Your task to perform on an android device: turn off translation in the chrome app Image 0: 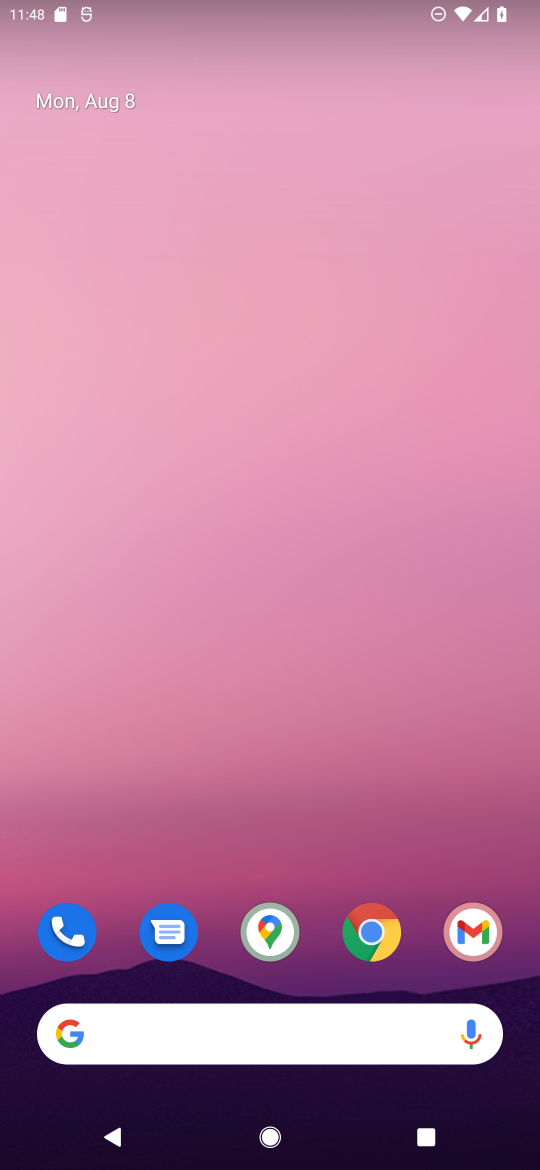
Step 0: click (371, 926)
Your task to perform on an android device: turn off translation in the chrome app Image 1: 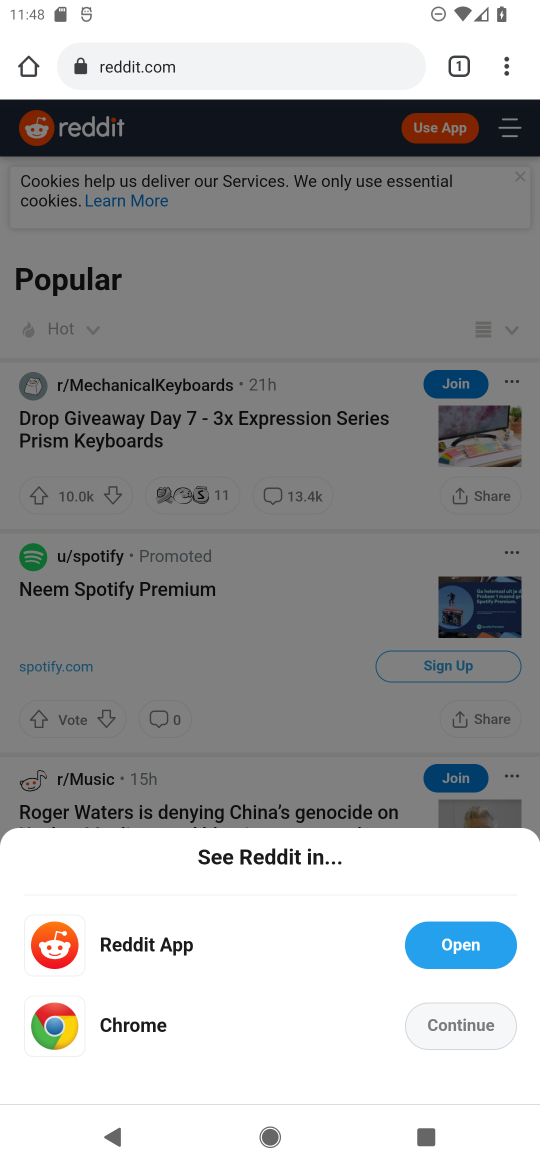
Step 1: click (514, 66)
Your task to perform on an android device: turn off translation in the chrome app Image 2: 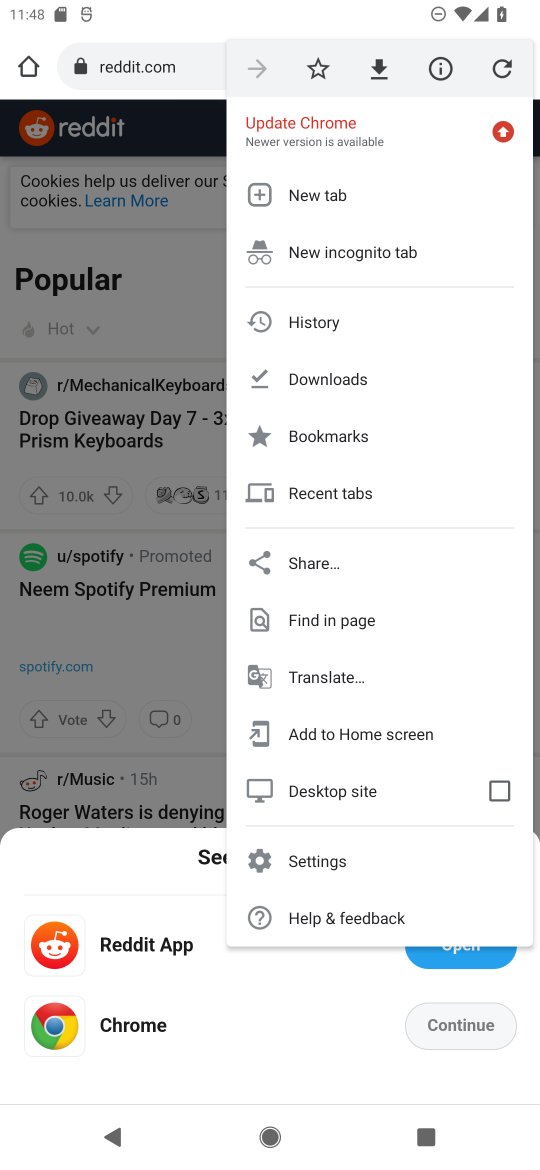
Step 2: click (305, 875)
Your task to perform on an android device: turn off translation in the chrome app Image 3: 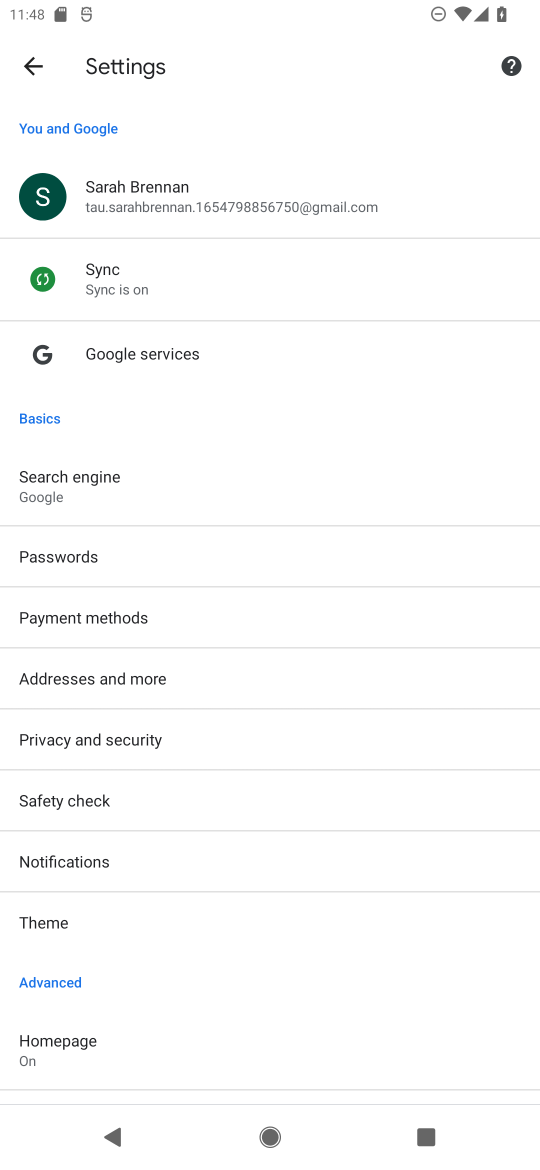
Step 3: drag from (124, 961) to (142, 263)
Your task to perform on an android device: turn off translation in the chrome app Image 4: 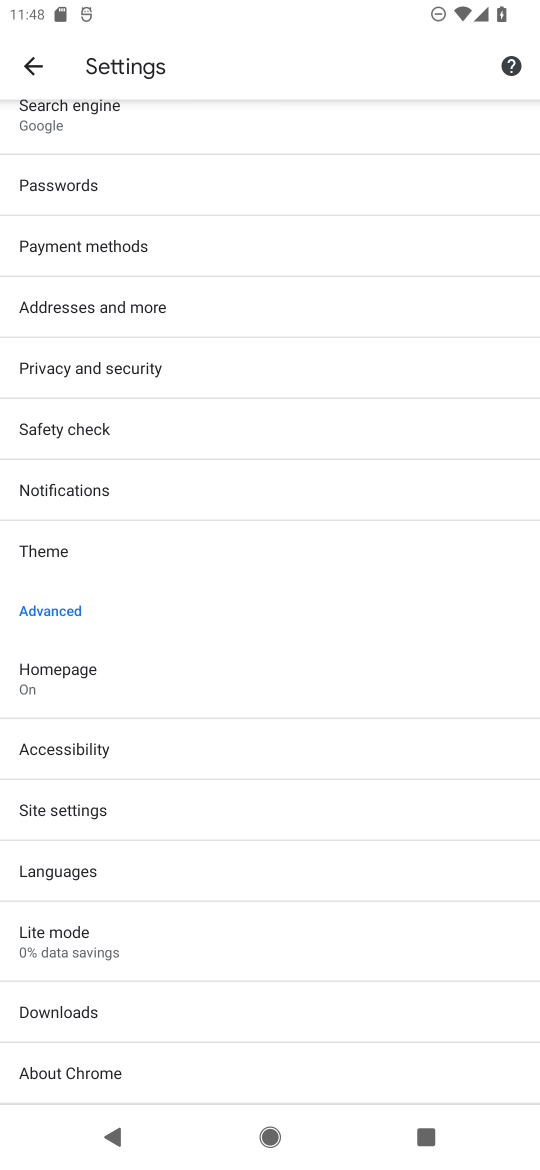
Step 4: click (96, 1048)
Your task to perform on an android device: turn off translation in the chrome app Image 5: 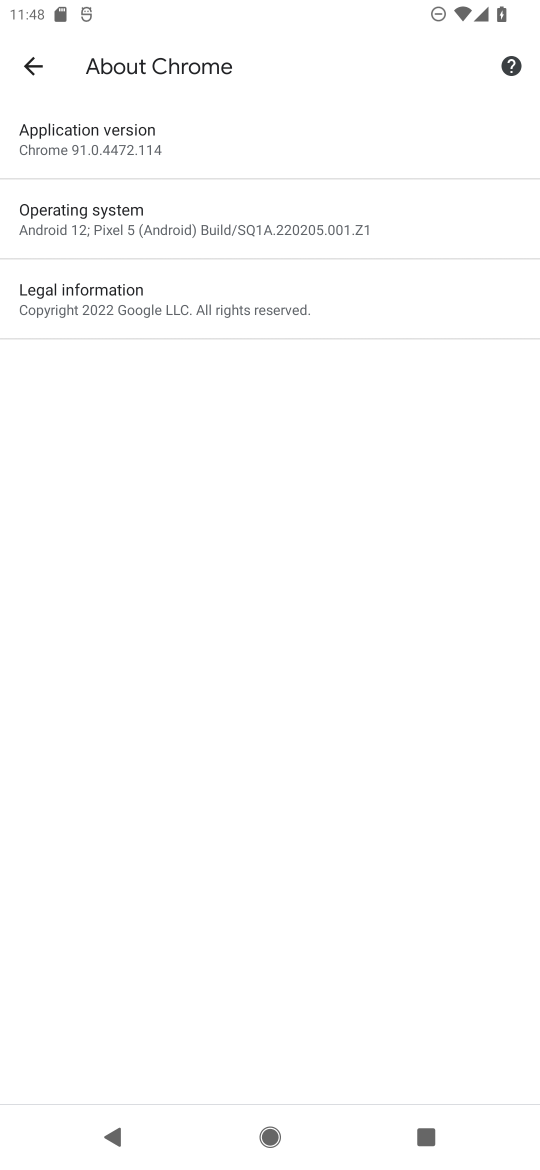
Step 5: click (358, 211)
Your task to perform on an android device: turn off translation in the chrome app Image 6: 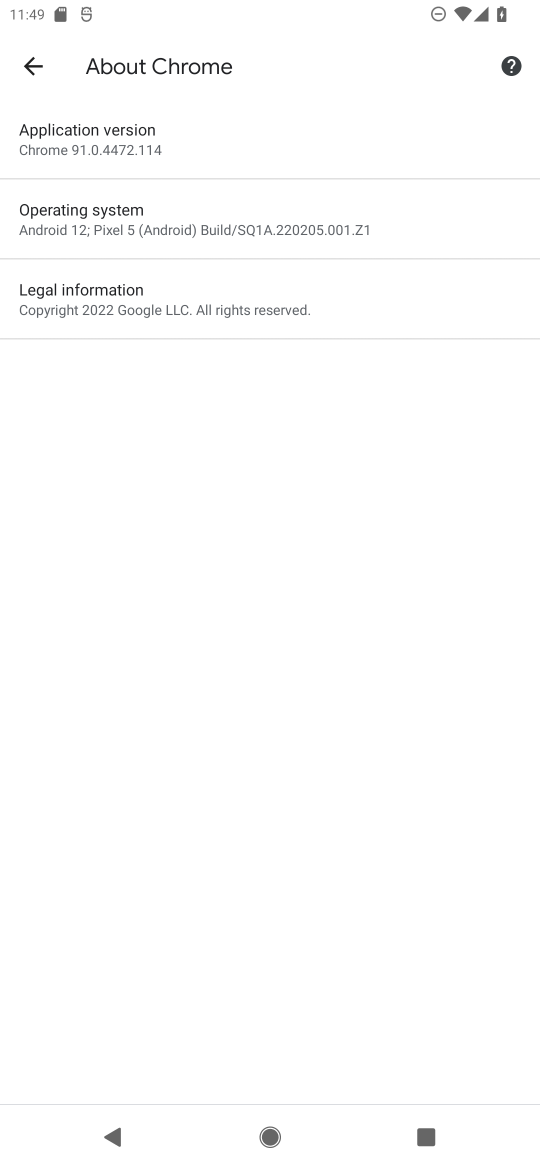
Step 6: click (45, 66)
Your task to perform on an android device: turn off translation in the chrome app Image 7: 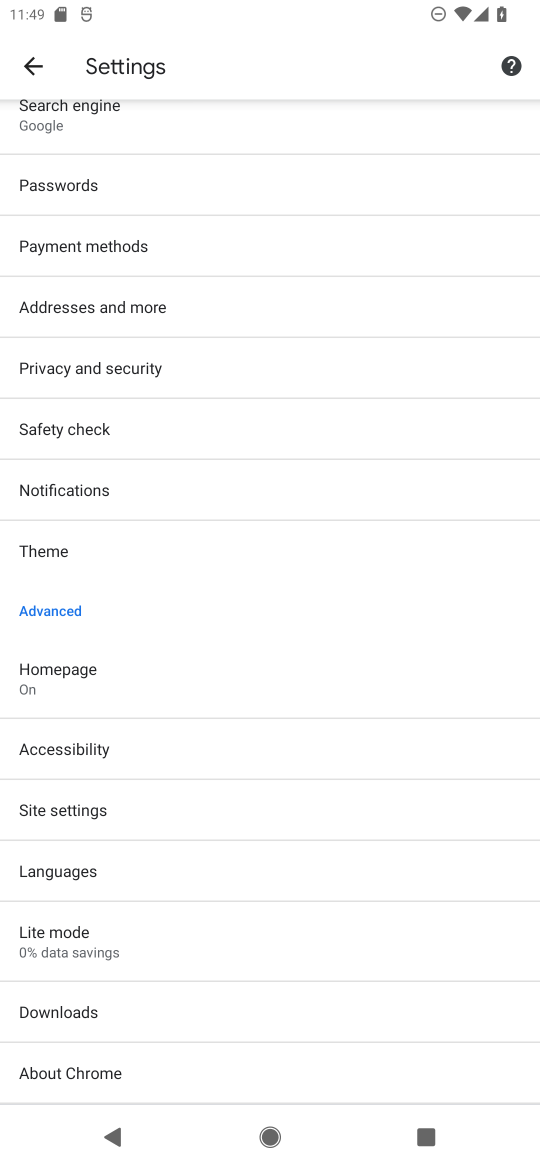
Step 7: click (206, 880)
Your task to perform on an android device: turn off translation in the chrome app Image 8: 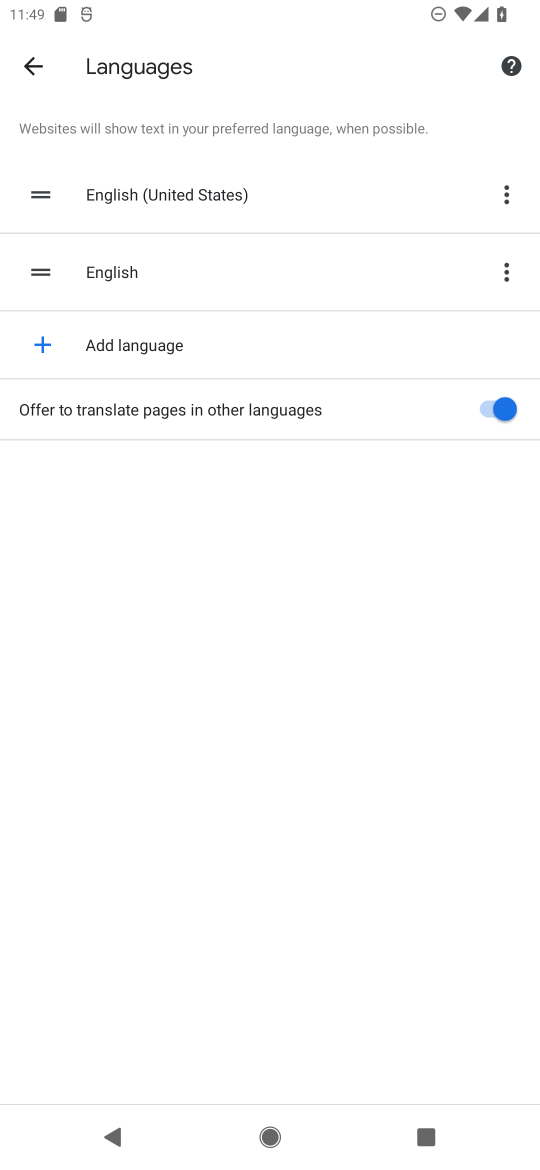
Step 8: click (493, 406)
Your task to perform on an android device: turn off translation in the chrome app Image 9: 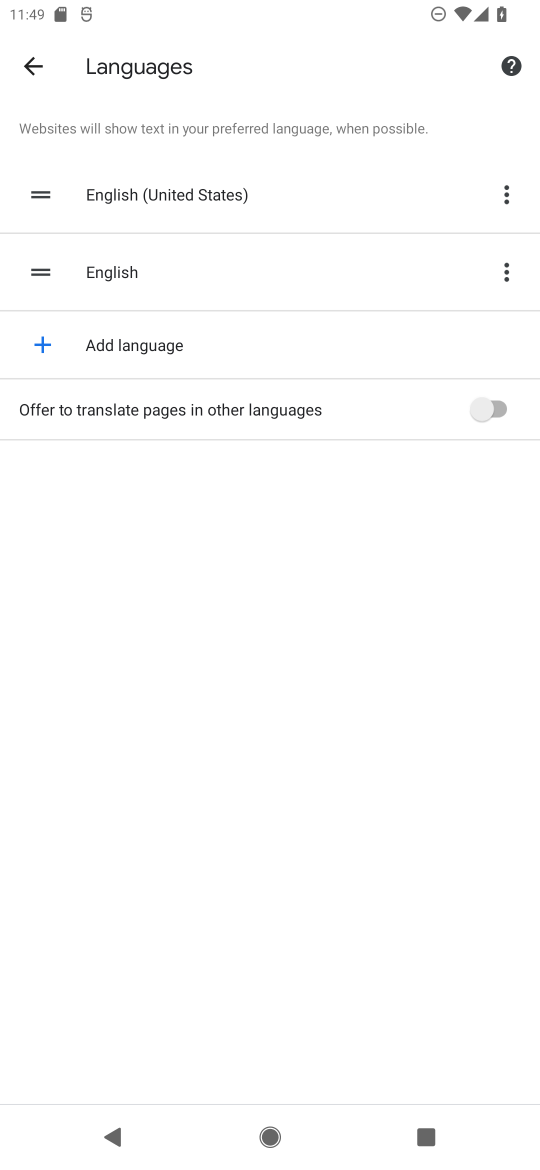
Step 9: task complete